Your task to perform on an android device: What is the news today? Image 0: 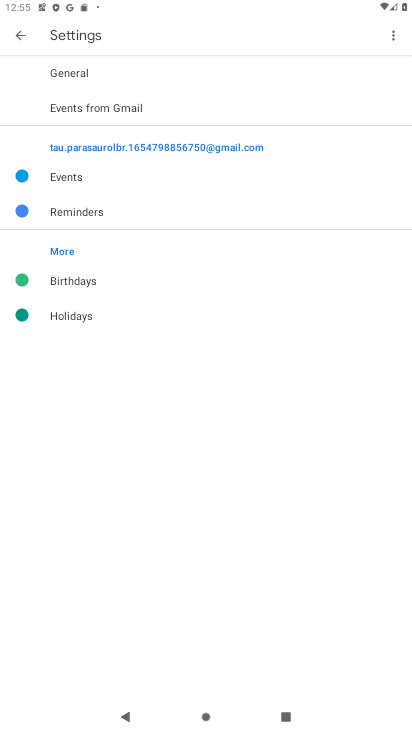
Step 0: press home button
Your task to perform on an android device: What is the news today? Image 1: 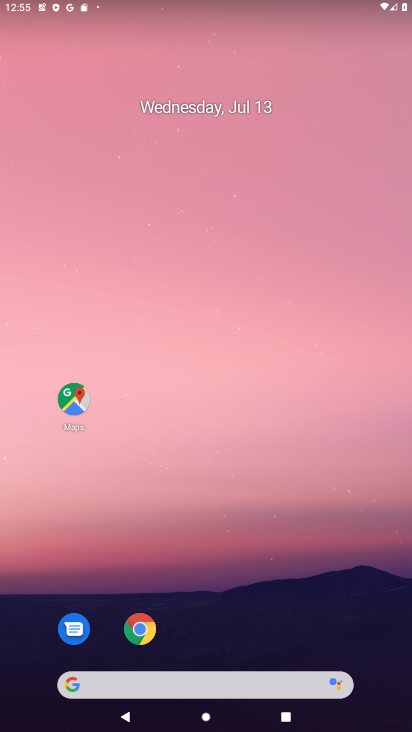
Step 1: click (140, 627)
Your task to perform on an android device: What is the news today? Image 2: 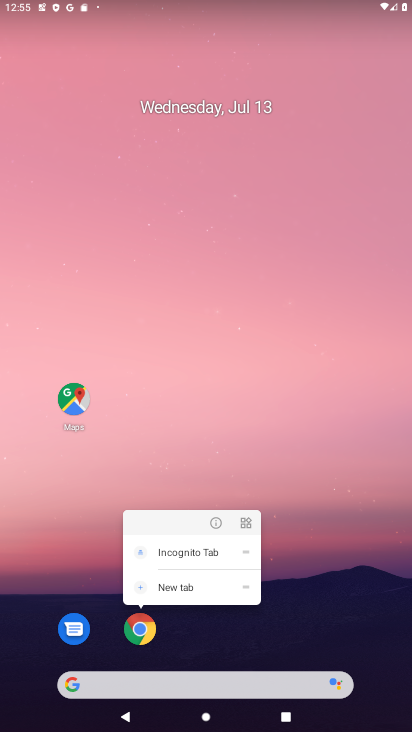
Step 2: click (153, 626)
Your task to perform on an android device: What is the news today? Image 3: 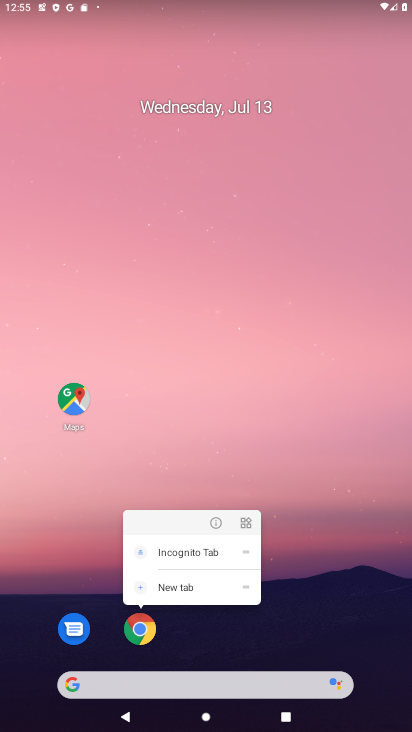
Step 3: click (147, 626)
Your task to perform on an android device: What is the news today? Image 4: 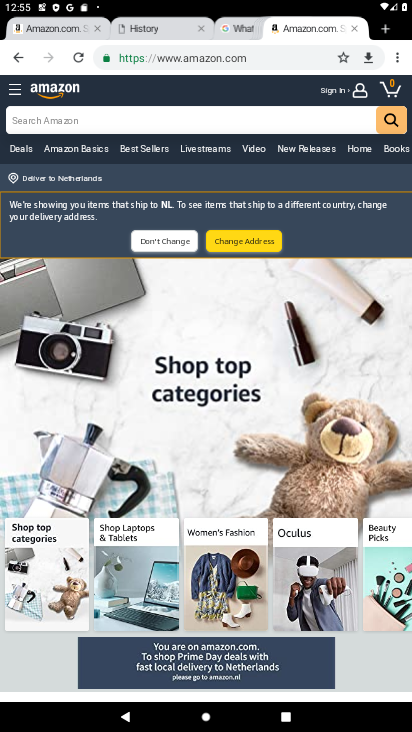
Step 4: click (392, 47)
Your task to perform on an android device: What is the news today? Image 5: 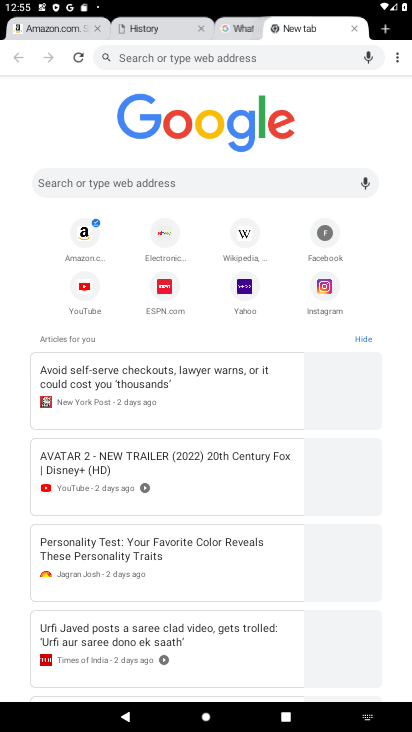
Step 5: click (397, 56)
Your task to perform on an android device: What is the news today? Image 6: 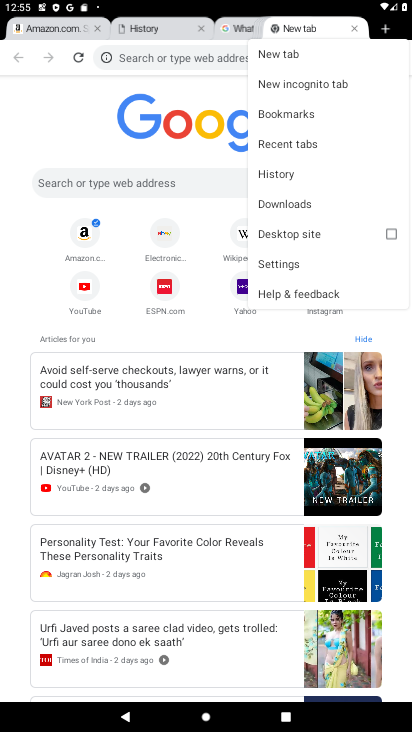
Step 6: click (70, 125)
Your task to perform on an android device: What is the news today? Image 7: 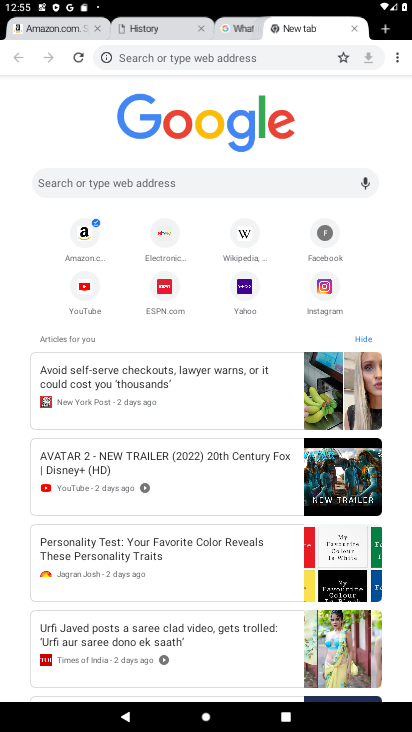
Step 7: click (176, 174)
Your task to perform on an android device: What is the news today? Image 8: 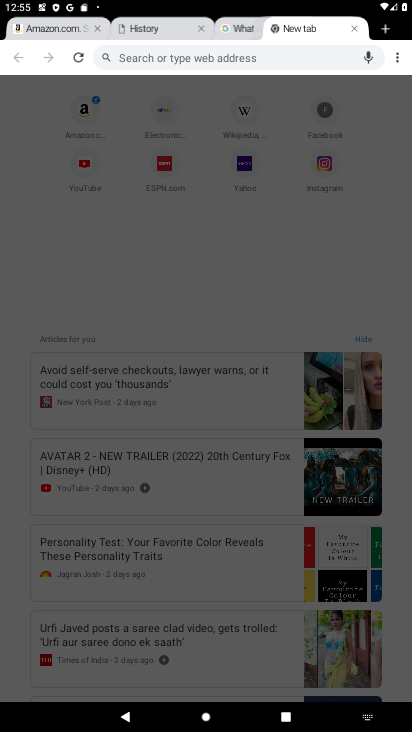
Step 8: type "What is the news today "
Your task to perform on an android device: What is the news today? Image 9: 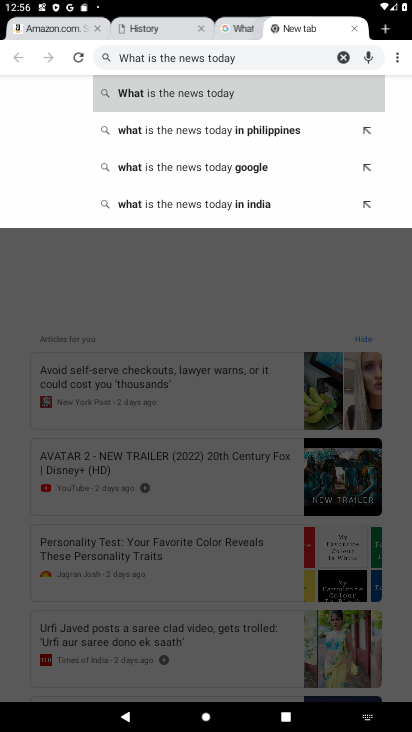
Step 9: click (252, 93)
Your task to perform on an android device: What is the news today? Image 10: 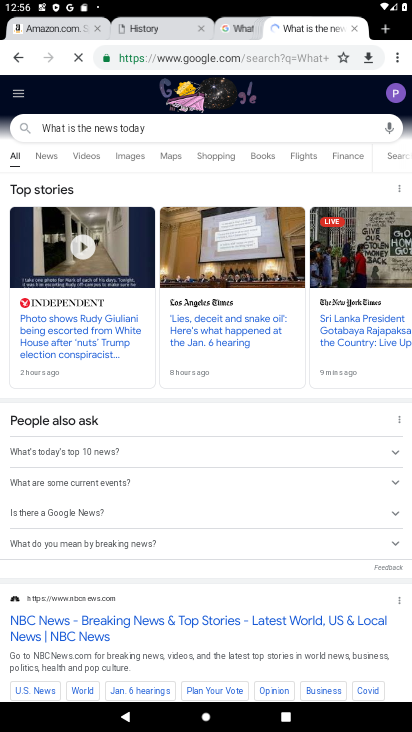
Step 10: task complete